Your task to perform on an android device: toggle priority inbox in the gmail app Image 0: 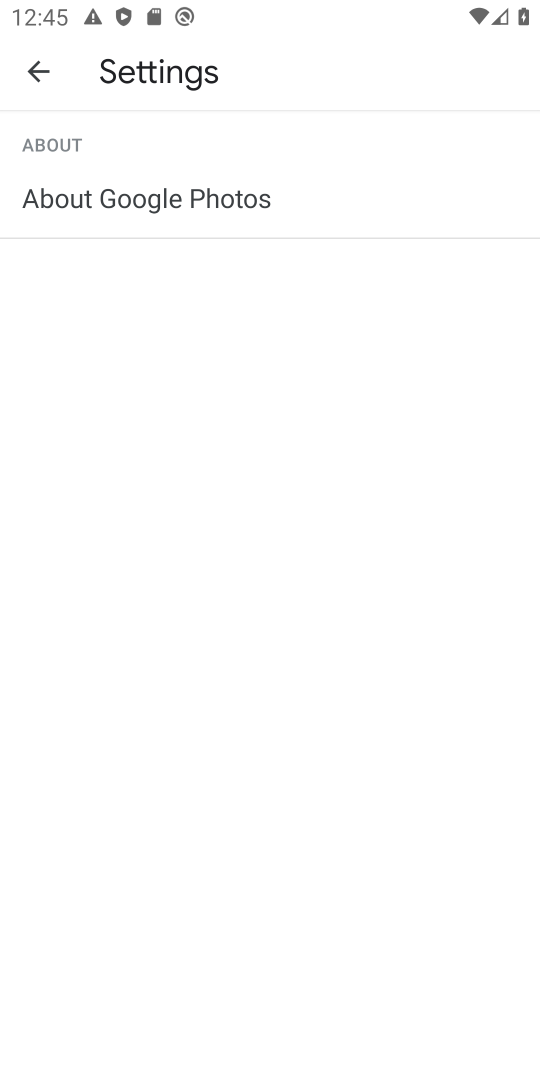
Step 0: press home button
Your task to perform on an android device: toggle priority inbox in the gmail app Image 1: 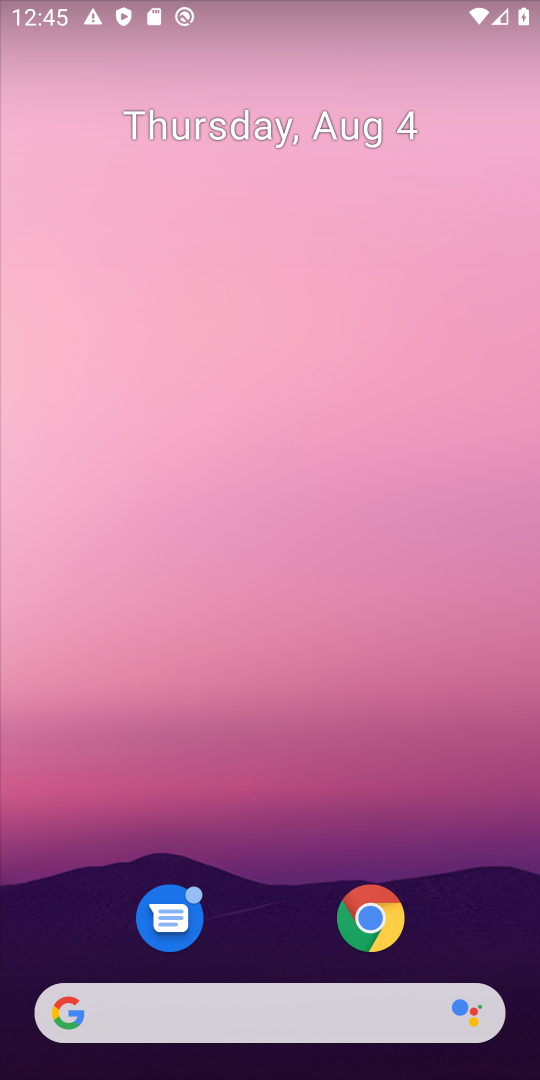
Step 1: drag from (266, 893) to (302, 208)
Your task to perform on an android device: toggle priority inbox in the gmail app Image 2: 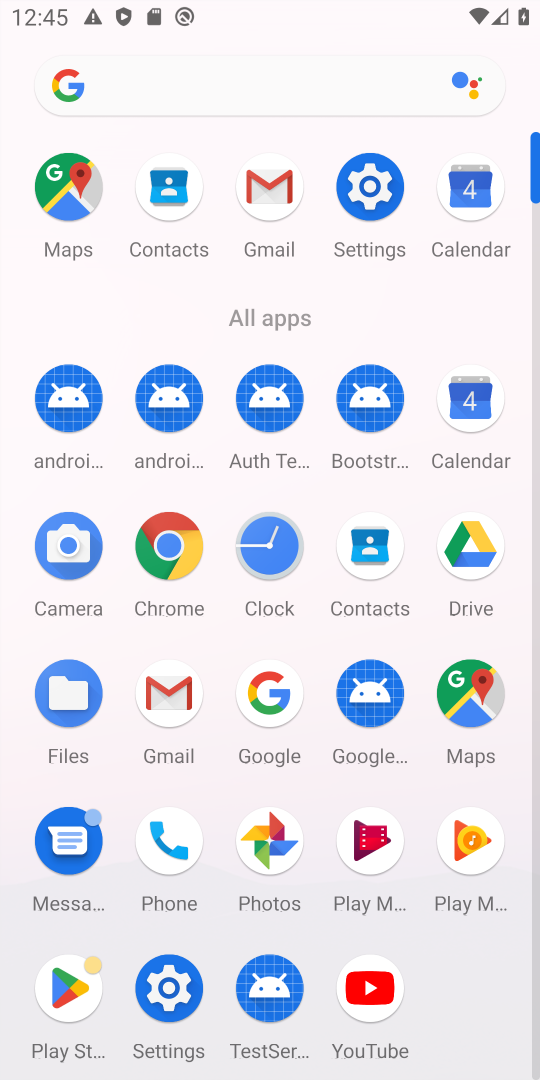
Step 2: click (261, 216)
Your task to perform on an android device: toggle priority inbox in the gmail app Image 3: 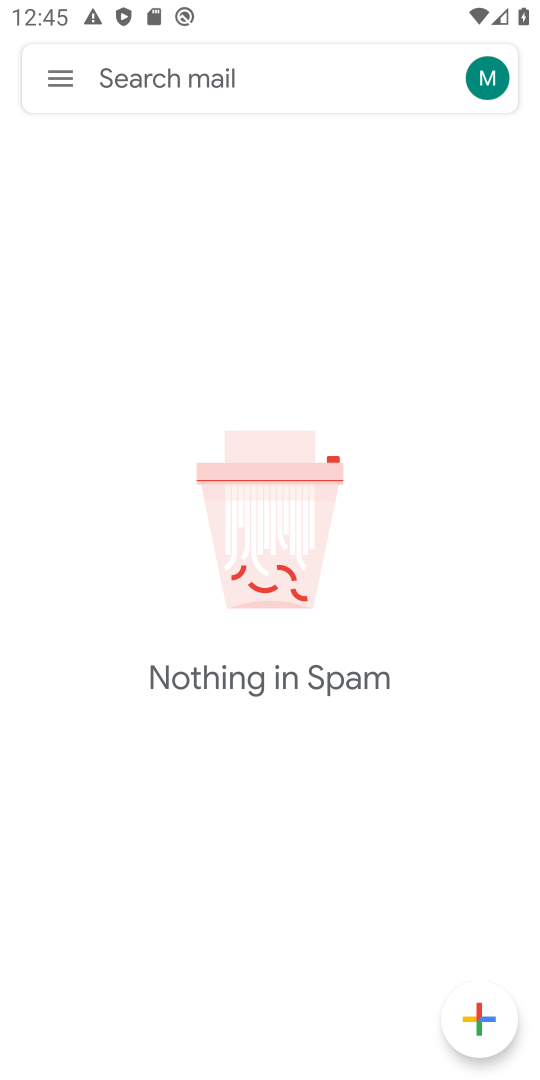
Step 3: click (48, 81)
Your task to perform on an android device: toggle priority inbox in the gmail app Image 4: 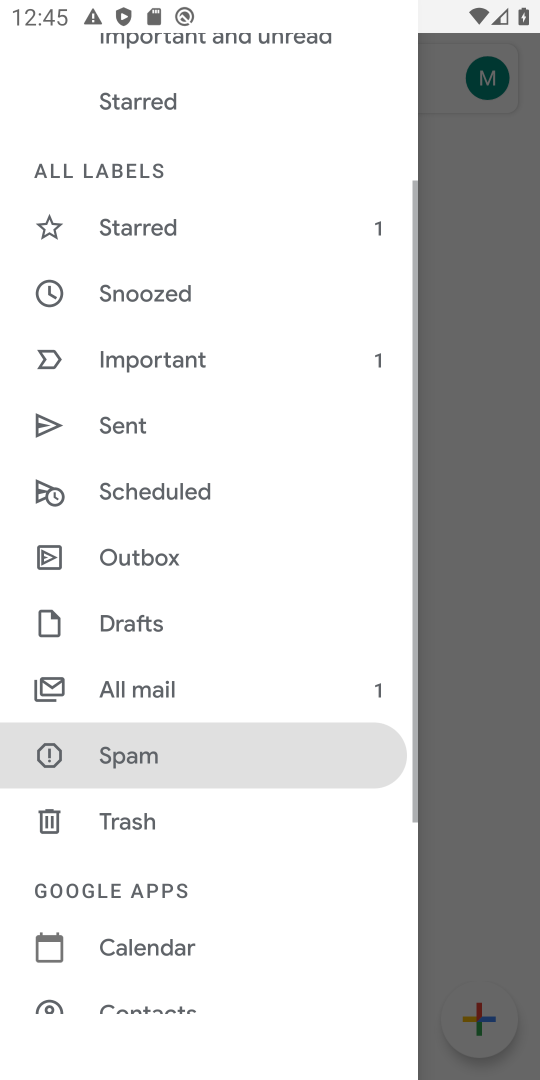
Step 4: drag from (144, 970) to (214, 479)
Your task to perform on an android device: toggle priority inbox in the gmail app Image 5: 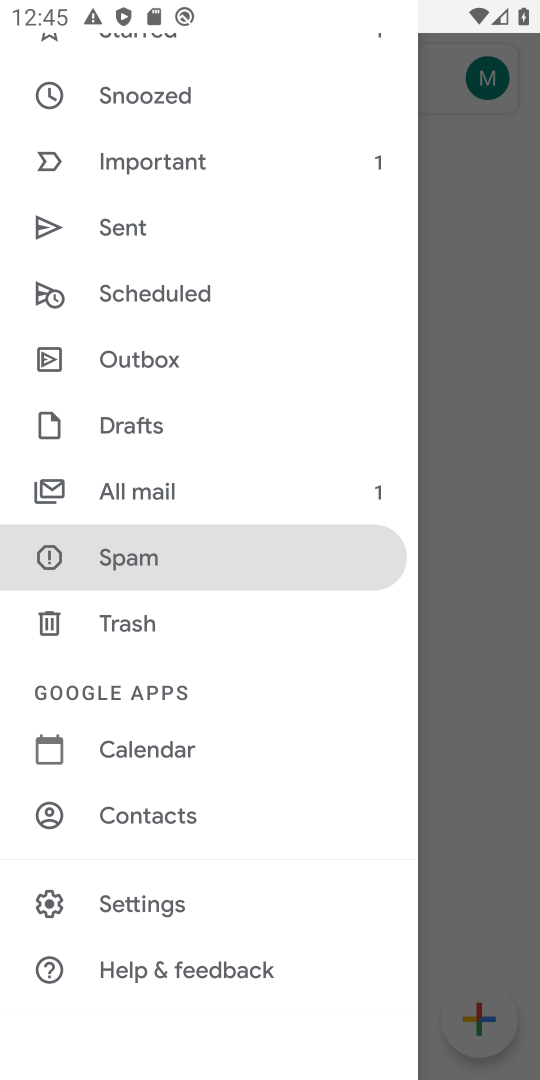
Step 5: click (136, 890)
Your task to perform on an android device: toggle priority inbox in the gmail app Image 6: 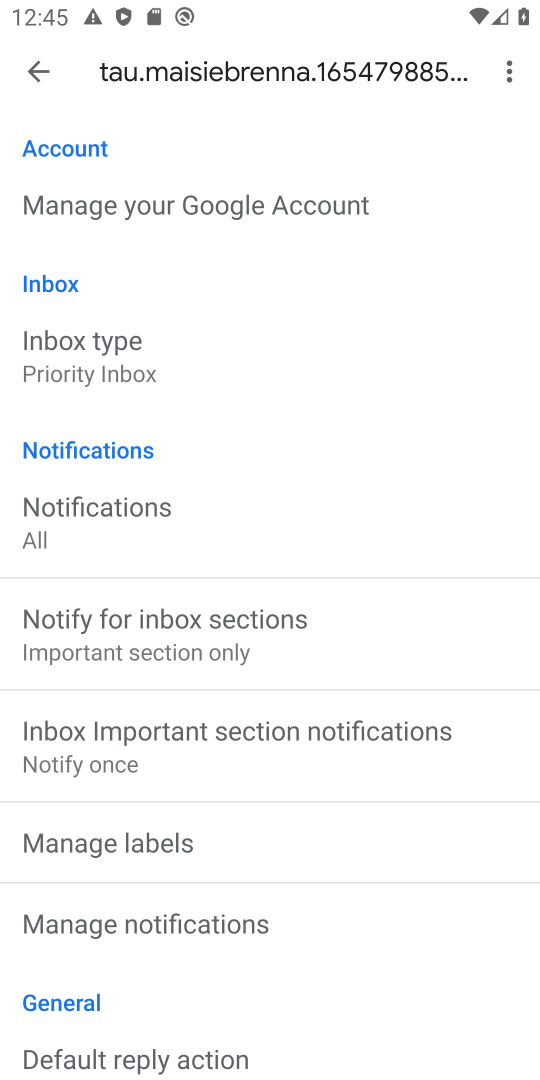
Step 6: click (88, 374)
Your task to perform on an android device: toggle priority inbox in the gmail app Image 7: 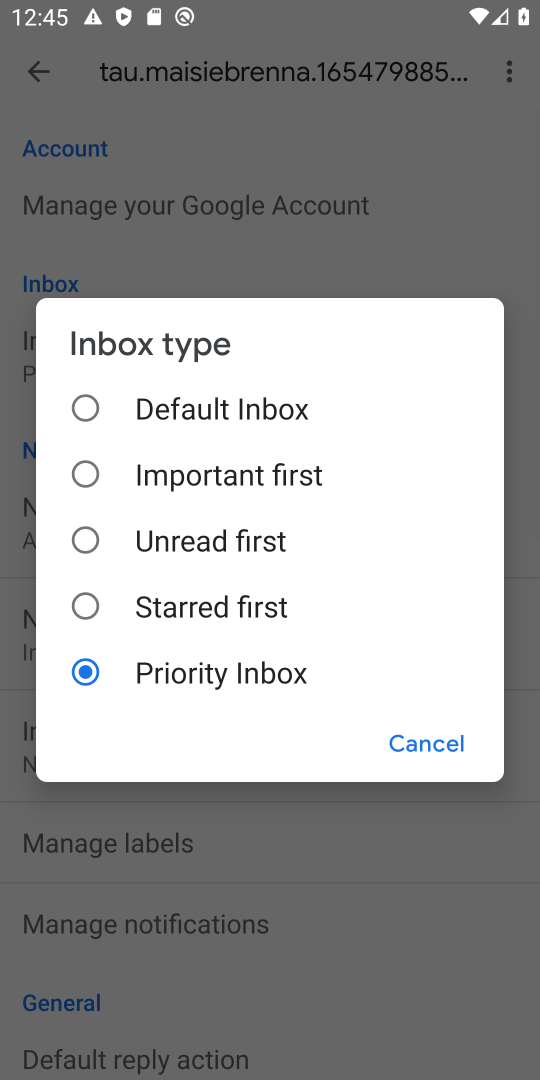
Step 7: click (172, 413)
Your task to perform on an android device: toggle priority inbox in the gmail app Image 8: 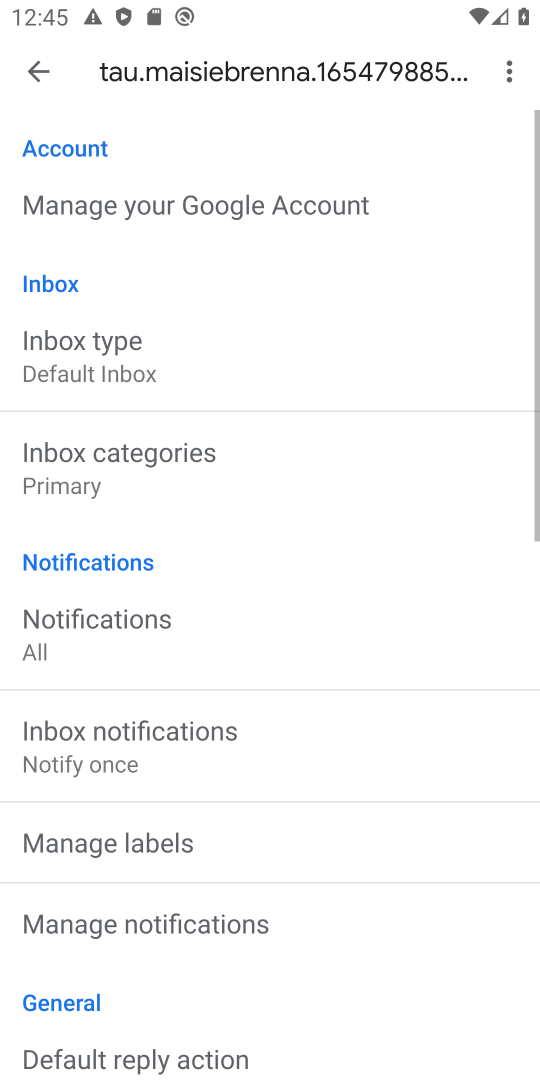
Step 8: task complete